Your task to perform on an android device: install app "Google Play Music" Image 0: 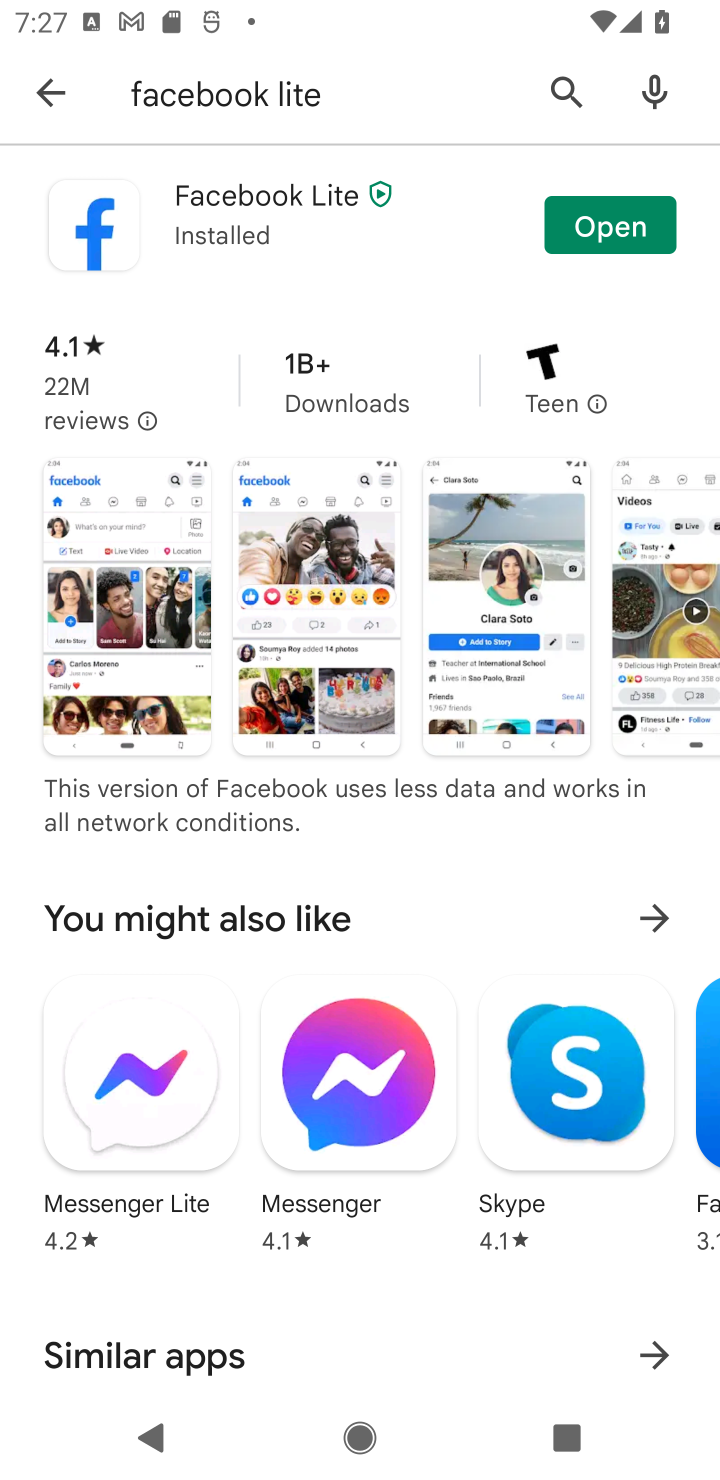
Step 0: press home button
Your task to perform on an android device: install app "Google Play Music" Image 1: 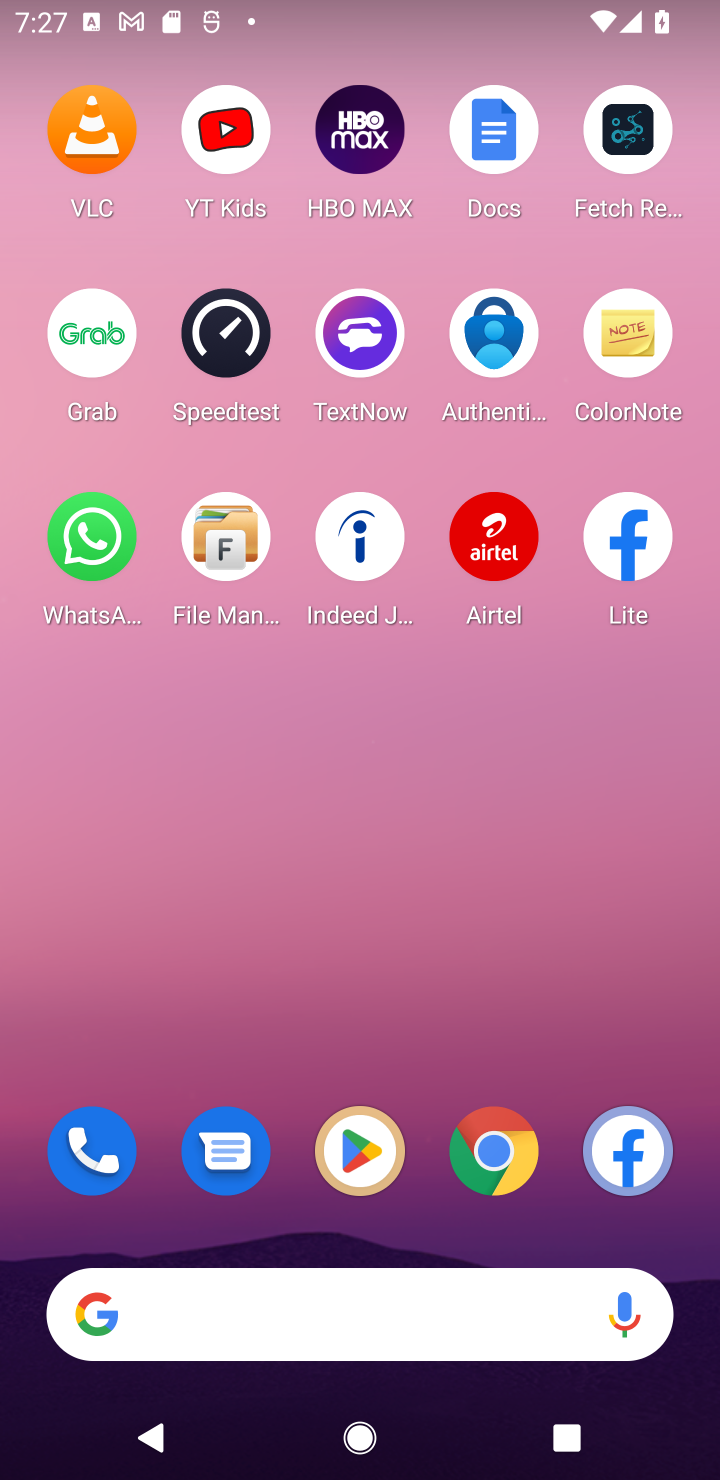
Step 1: press home button
Your task to perform on an android device: install app "Google Play Music" Image 2: 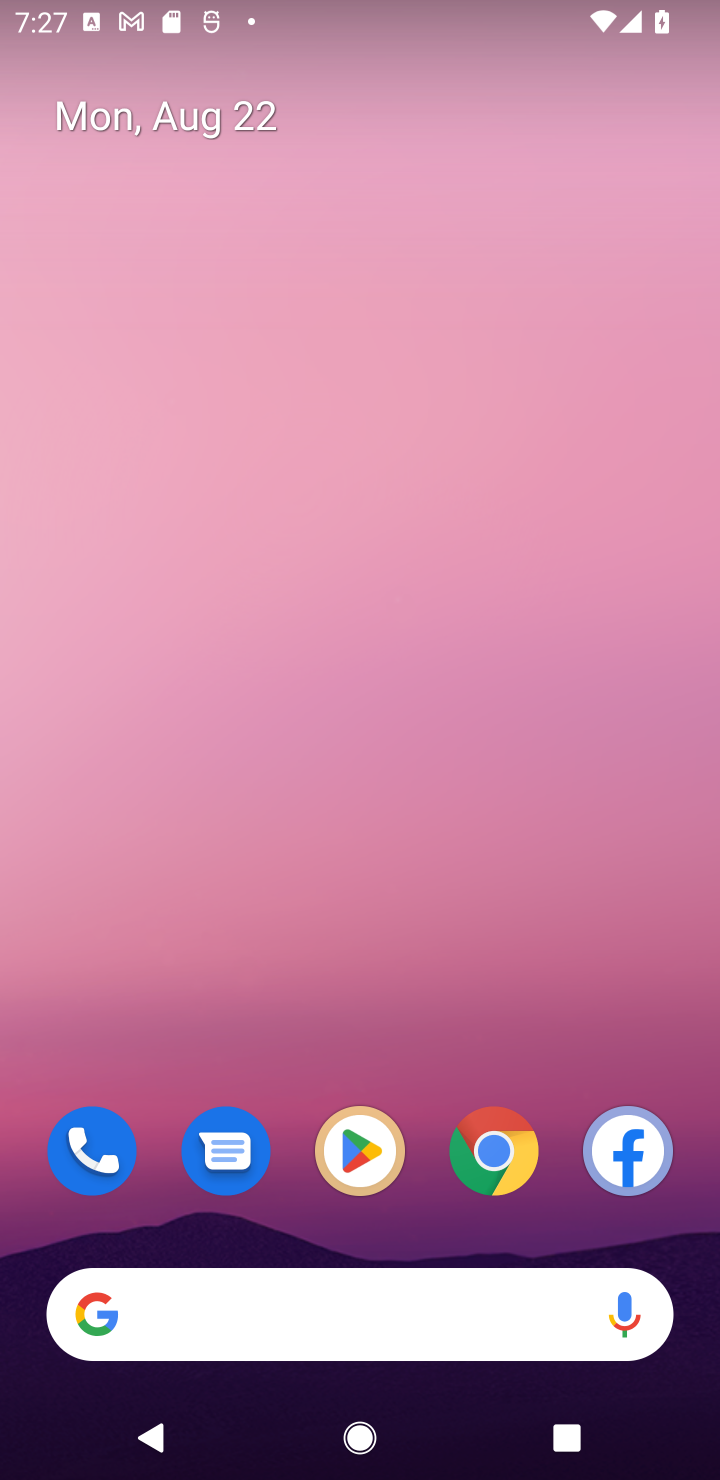
Step 2: click (368, 1149)
Your task to perform on an android device: install app "Google Play Music" Image 3: 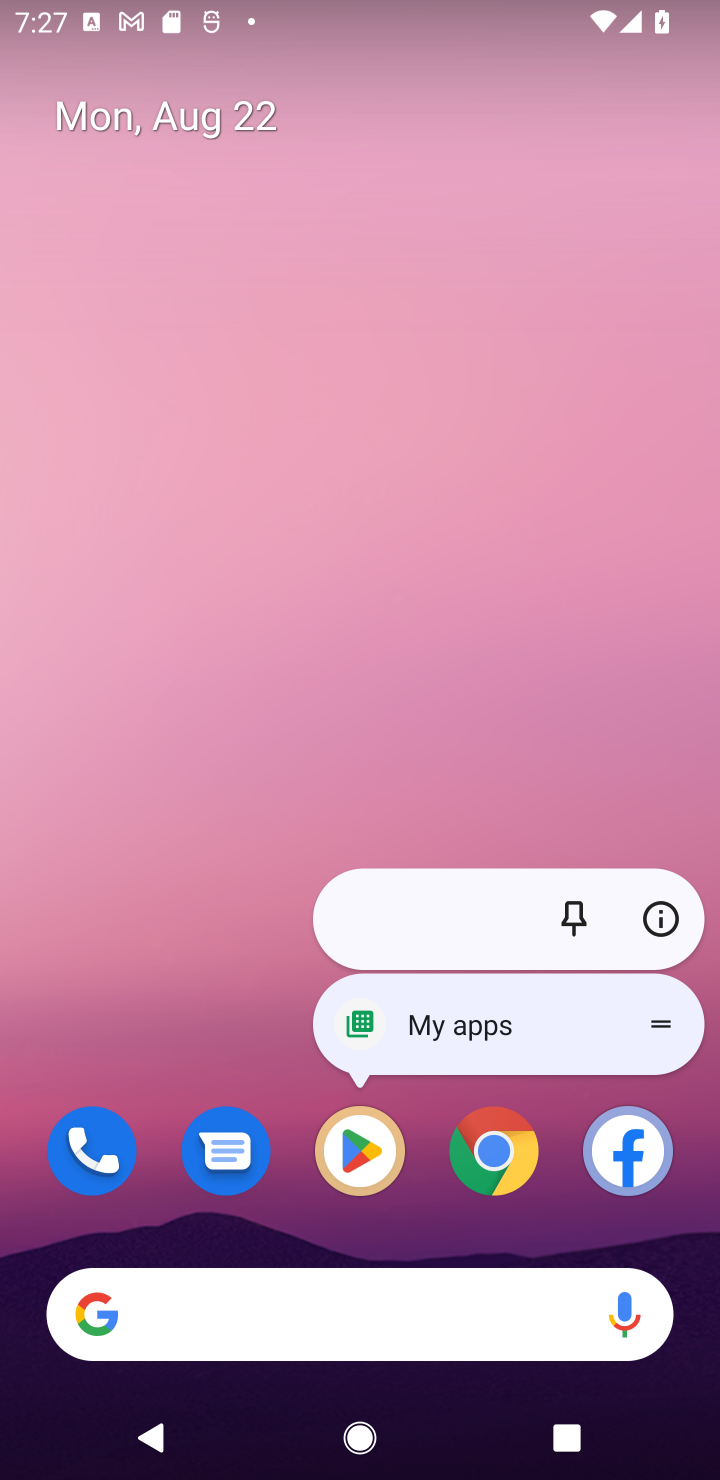
Step 3: click (368, 1157)
Your task to perform on an android device: install app "Google Play Music" Image 4: 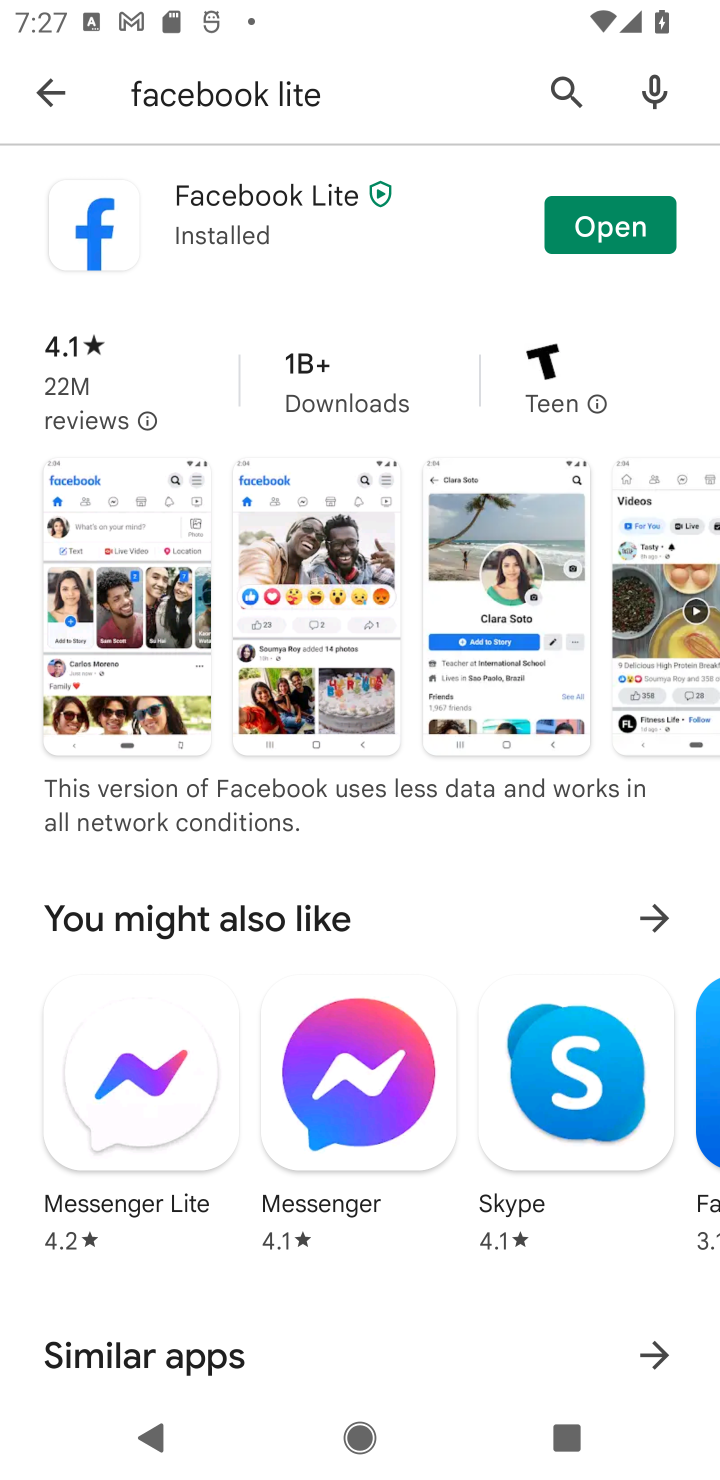
Step 4: click (567, 93)
Your task to perform on an android device: install app "Google Play Music" Image 5: 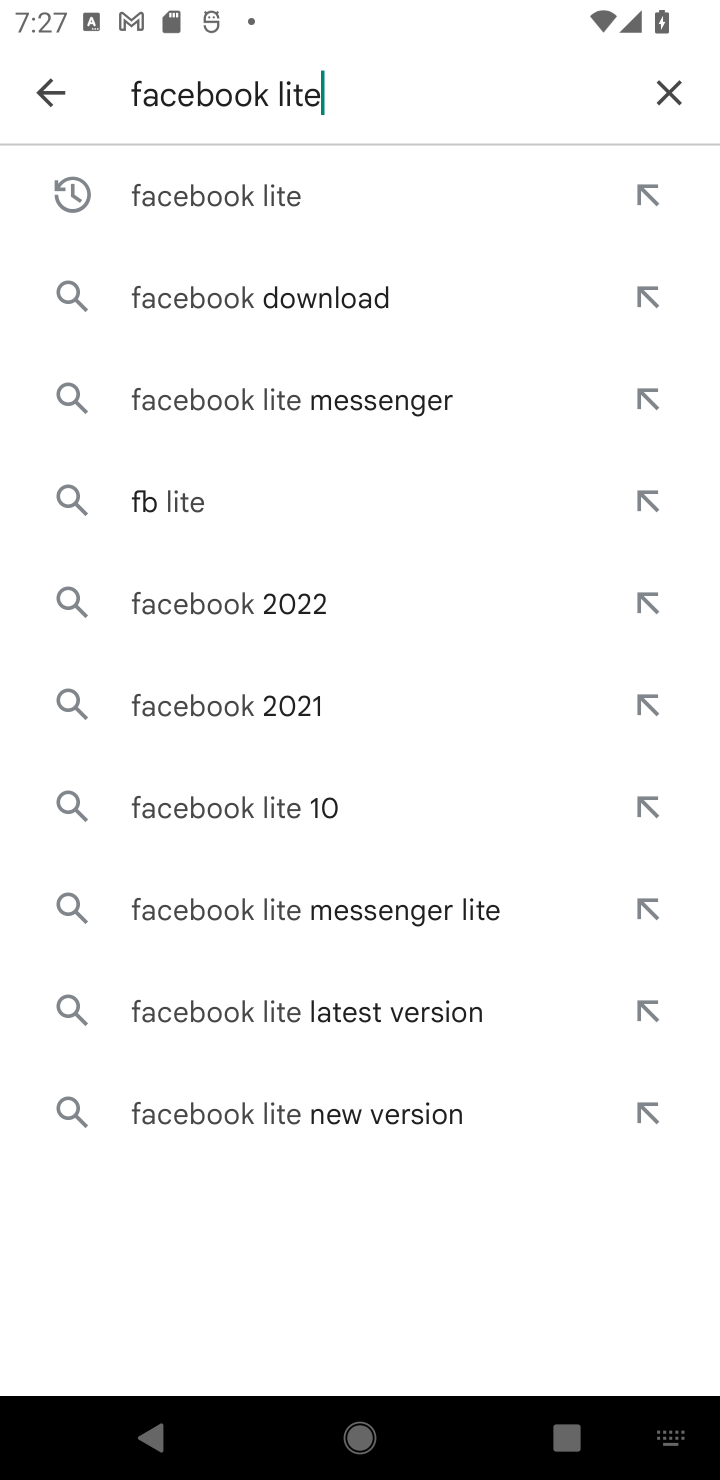
Step 5: click (666, 84)
Your task to perform on an android device: install app "Google Play Music" Image 6: 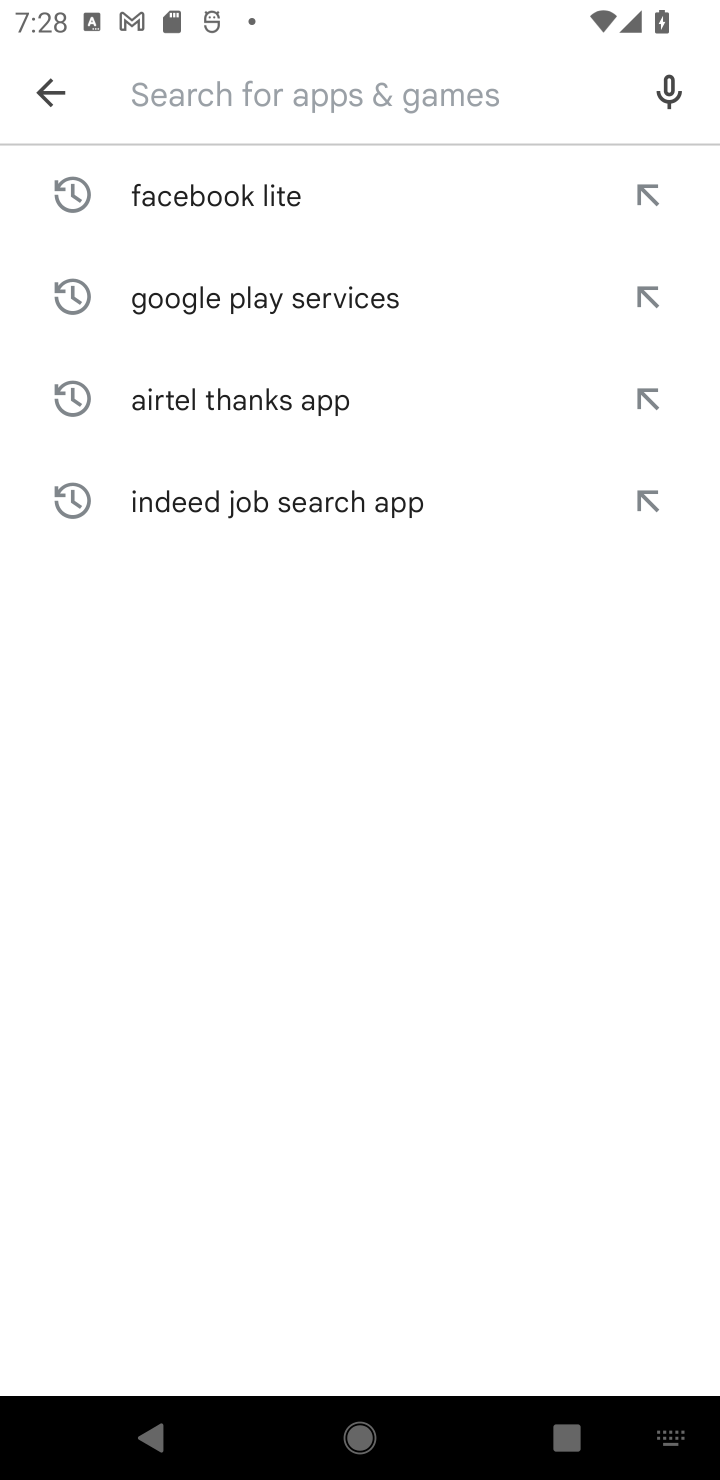
Step 6: type "Google Play Music"
Your task to perform on an android device: install app "Google Play Music" Image 7: 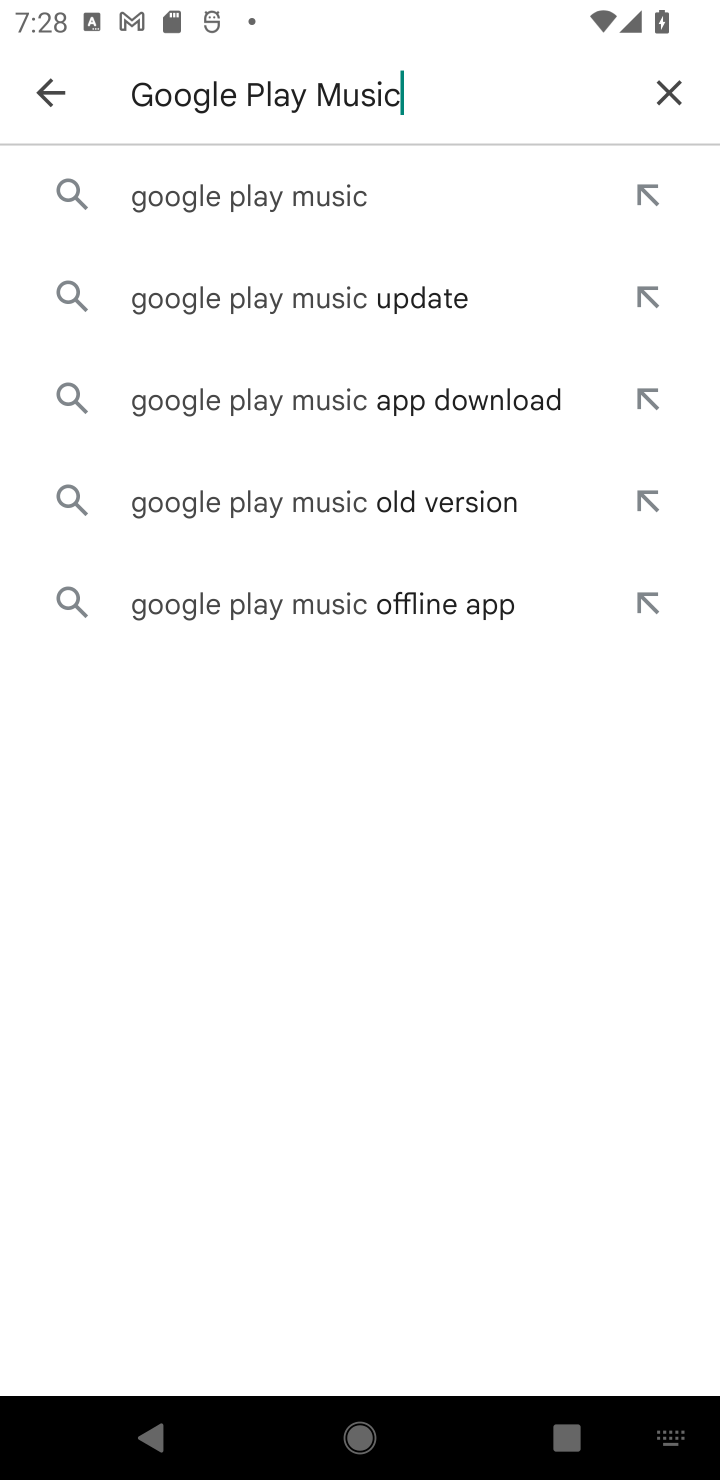
Step 7: click (257, 197)
Your task to perform on an android device: install app "Google Play Music" Image 8: 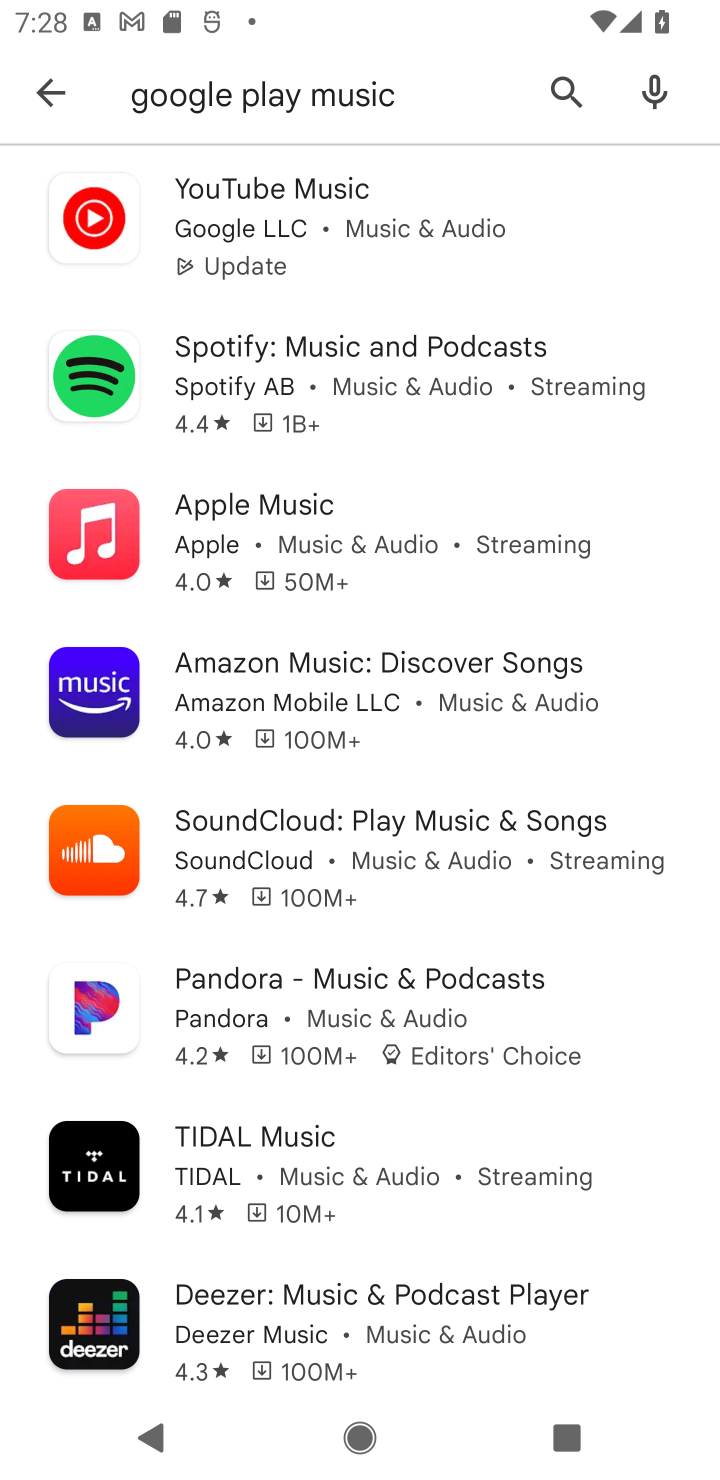
Step 8: task complete